Your task to perform on an android device: Open Google Chrome and open the bookmarks view Image 0: 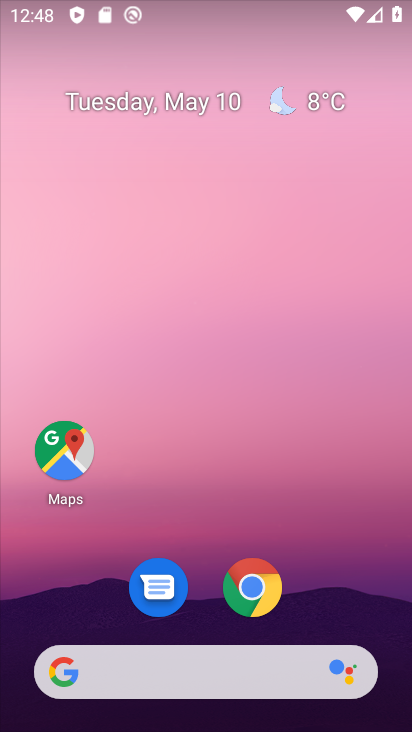
Step 0: drag from (334, 569) to (287, 137)
Your task to perform on an android device: Open Google Chrome and open the bookmarks view Image 1: 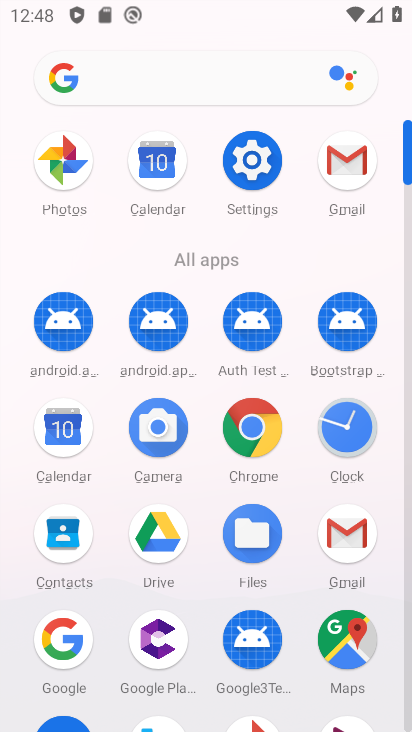
Step 1: click (259, 416)
Your task to perform on an android device: Open Google Chrome and open the bookmarks view Image 2: 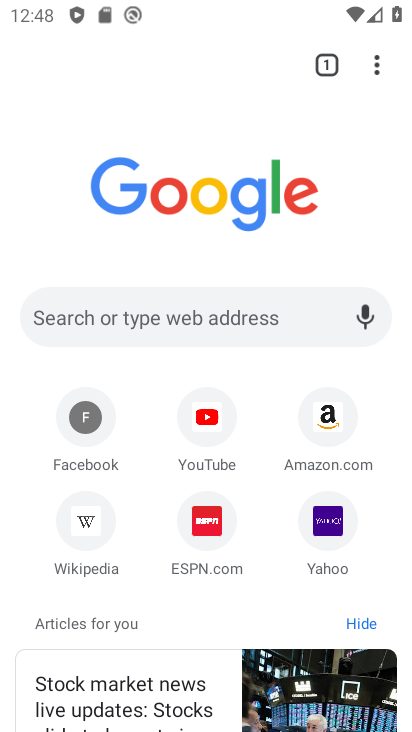
Step 2: click (379, 57)
Your task to perform on an android device: Open Google Chrome and open the bookmarks view Image 3: 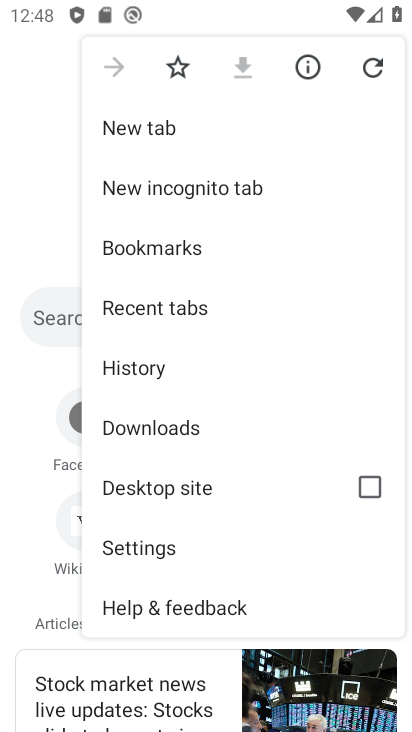
Step 3: click (175, 258)
Your task to perform on an android device: Open Google Chrome and open the bookmarks view Image 4: 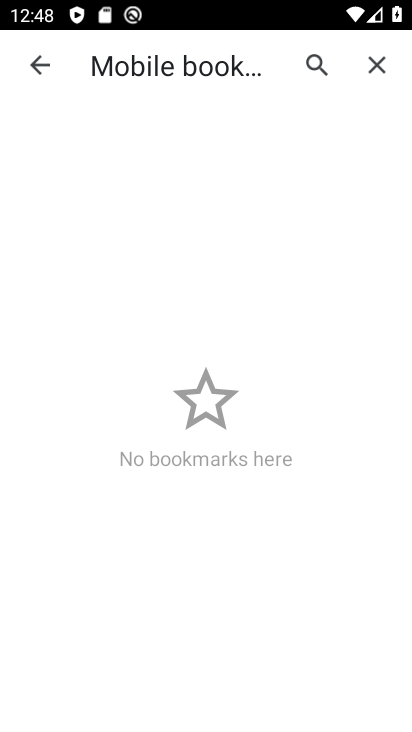
Step 4: task complete